Your task to perform on an android device: see sites visited before in the chrome app Image 0: 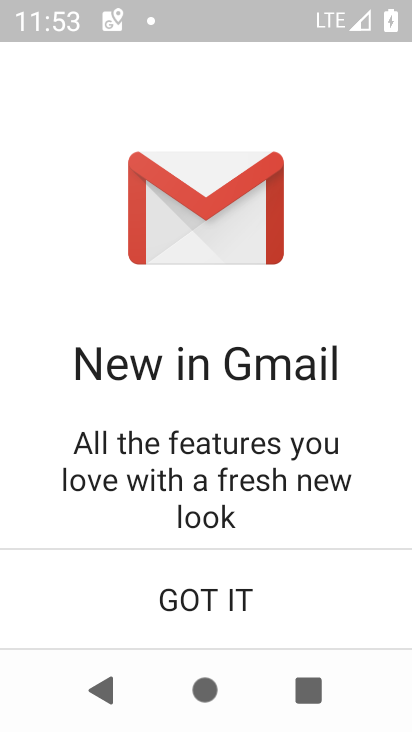
Step 0: press home button
Your task to perform on an android device: see sites visited before in the chrome app Image 1: 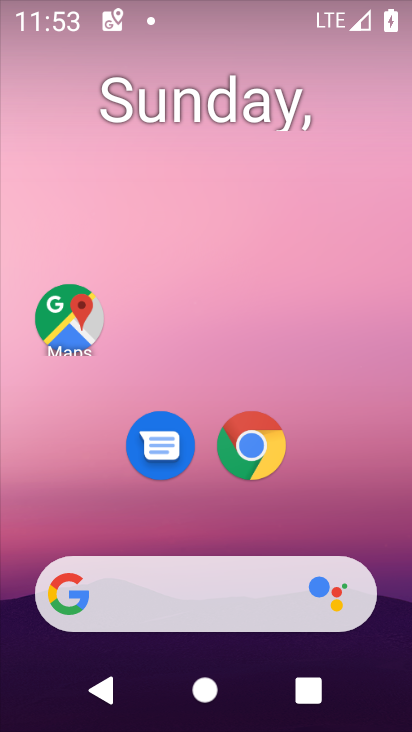
Step 1: click (268, 468)
Your task to perform on an android device: see sites visited before in the chrome app Image 2: 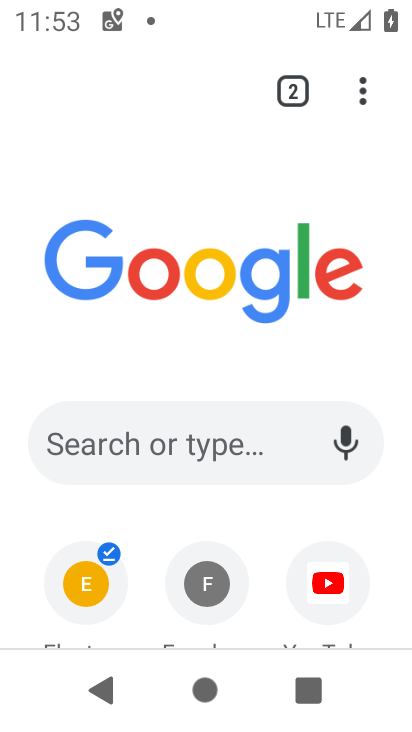
Step 2: click (358, 85)
Your task to perform on an android device: see sites visited before in the chrome app Image 3: 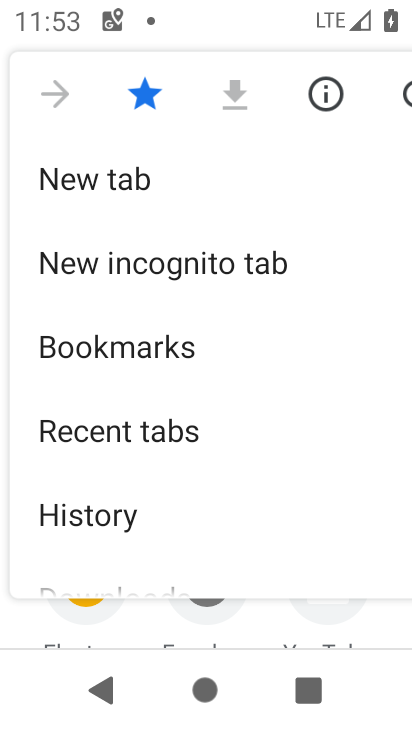
Step 3: drag from (316, 490) to (287, 88)
Your task to perform on an android device: see sites visited before in the chrome app Image 4: 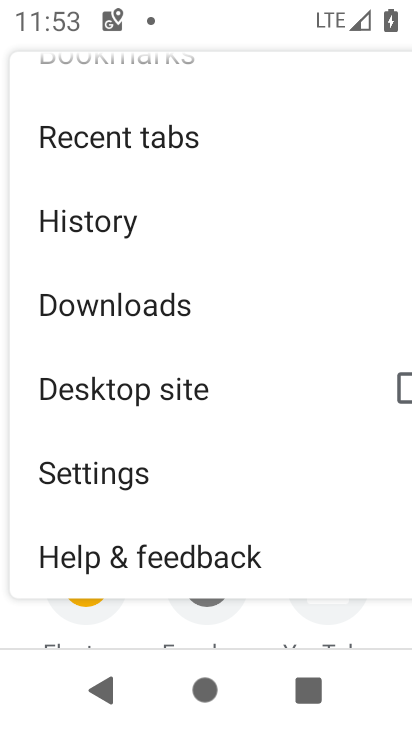
Step 4: drag from (202, 520) to (156, 249)
Your task to perform on an android device: see sites visited before in the chrome app Image 5: 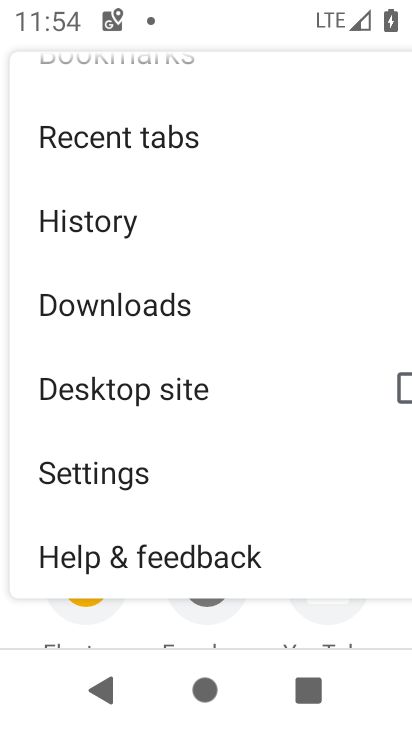
Step 5: click (131, 221)
Your task to perform on an android device: see sites visited before in the chrome app Image 6: 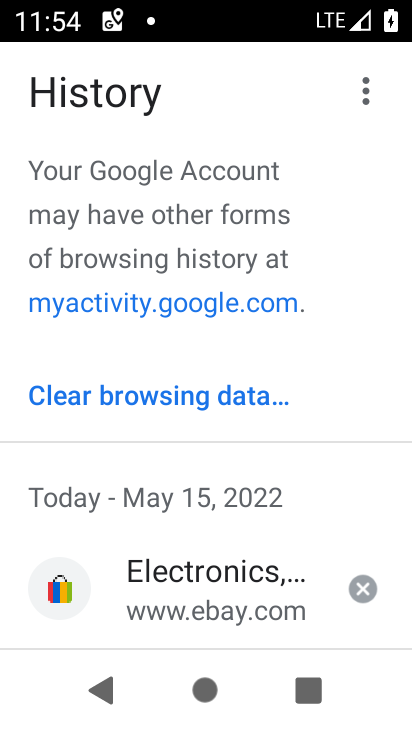
Step 6: task complete